Your task to perform on an android device: Open my contact list Image 0: 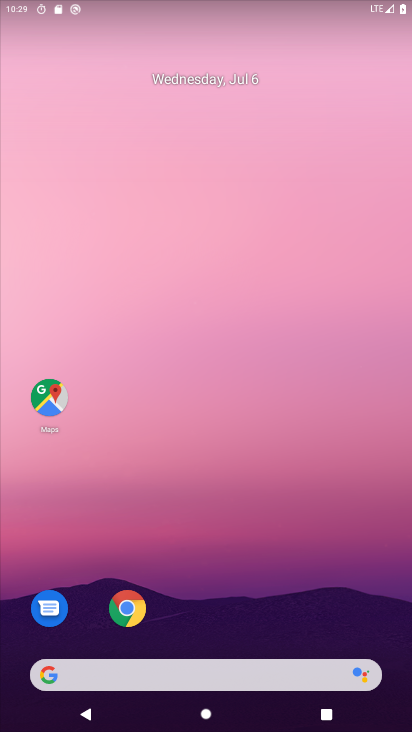
Step 0: drag from (215, 506) to (258, 187)
Your task to perform on an android device: Open my contact list Image 1: 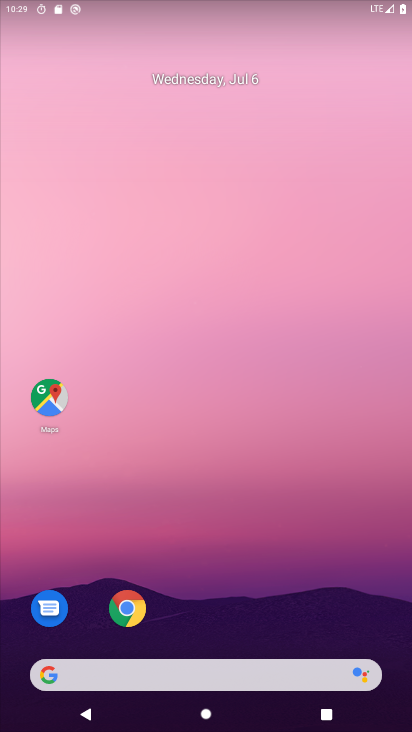
Step 1: drag from (239, 590) to (252, 5)
Your task to perform on an android device: Open my contact list Image 2: 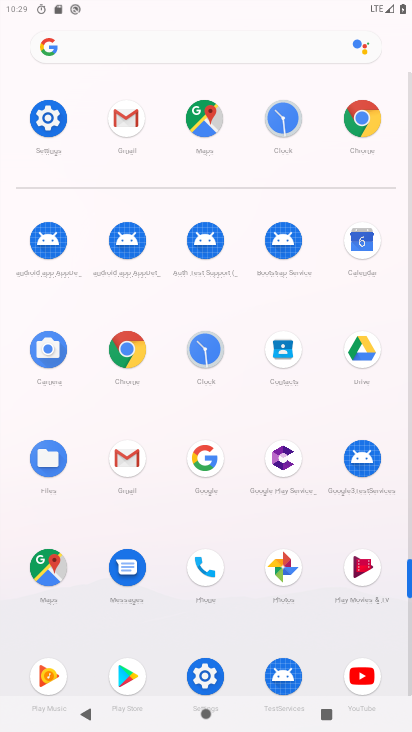
Step 2: click (285, 359)
Your task to perform on an android device: Open my contact list Image 3: 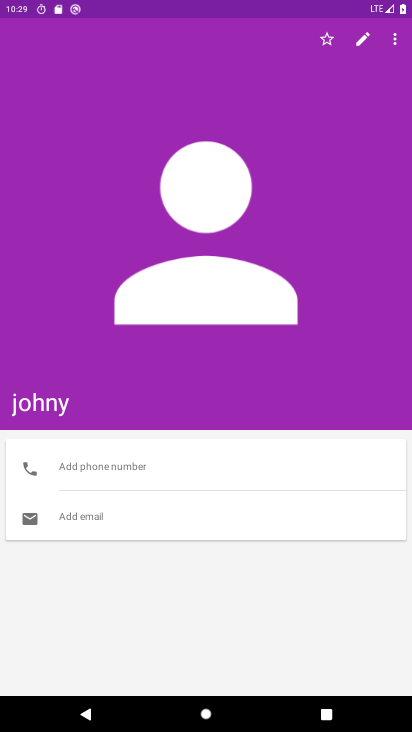
Step 3: task complete